Your task to perform on an android device: Search for sushi restaurants on Maps Image 0: 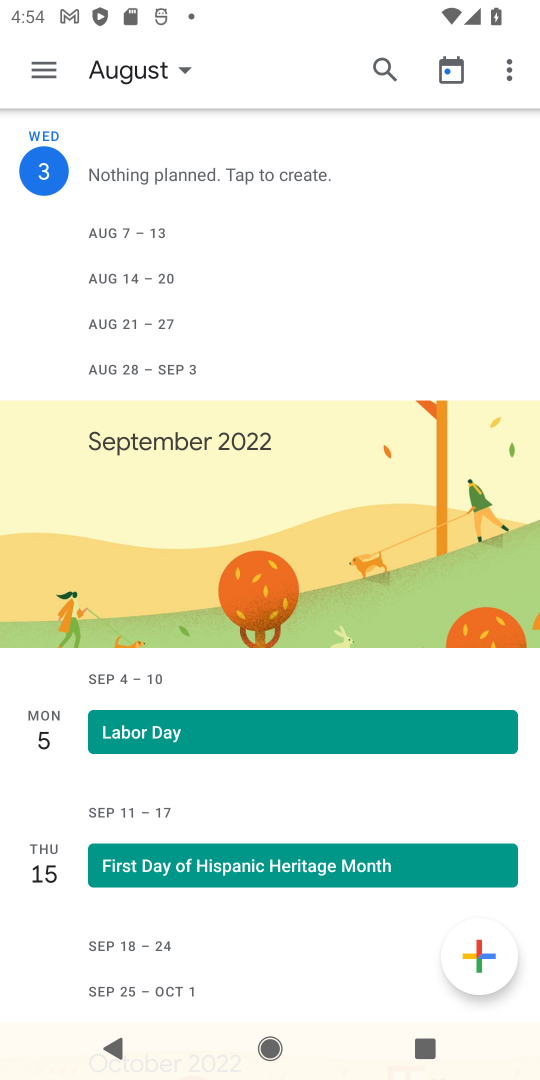
Step 0: press back button
Your task to perform on an android device: Search for sushi restaurants on Maps Image 1: 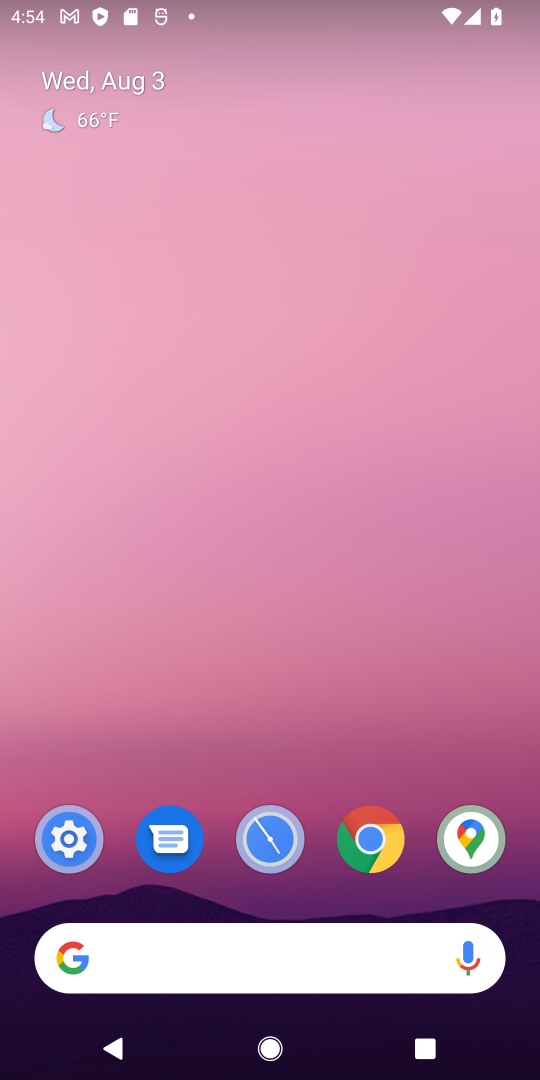
Step 1: click (462, 838)
Your task to perform on an android device: Search for sushi restaurants on Maps Image 2: 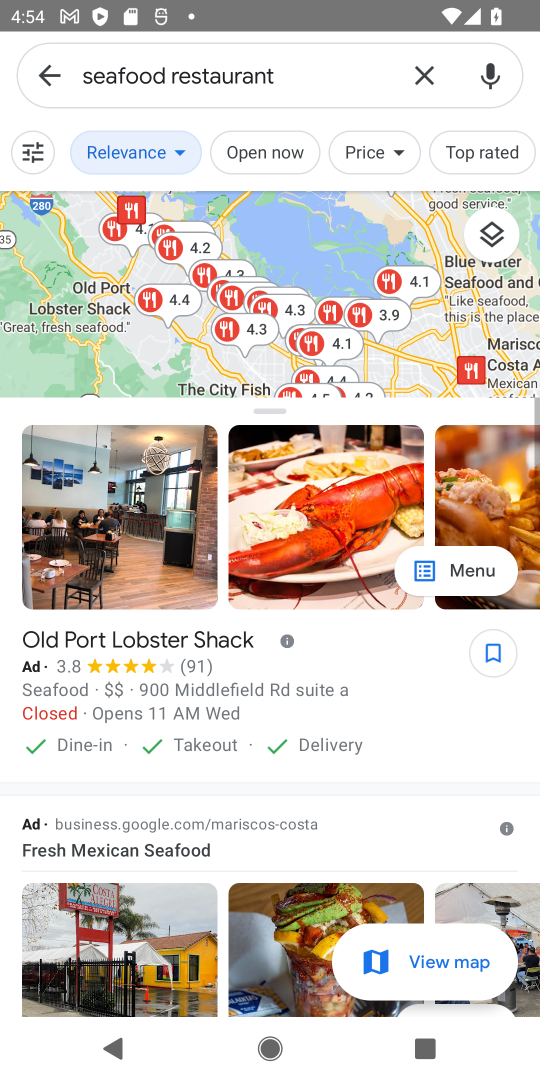
Step 2: click (428, 60)
Your task to perform on an android device: Search for sushi restaurants on Maps Image 3: 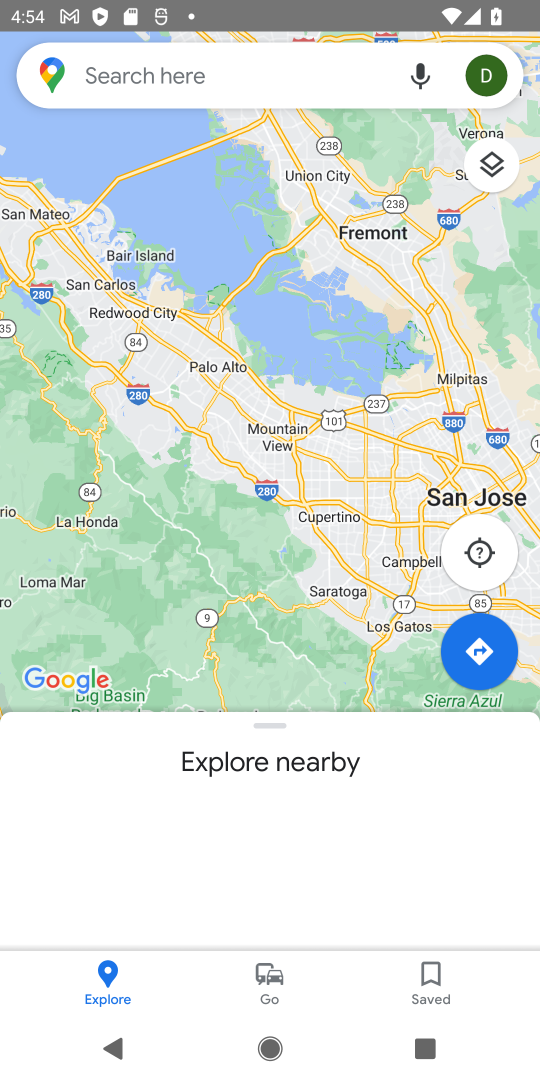
Step 3: click (223, 82)
Your task to perform on an android device: Search for sushi restaurants on Maps Image 4: 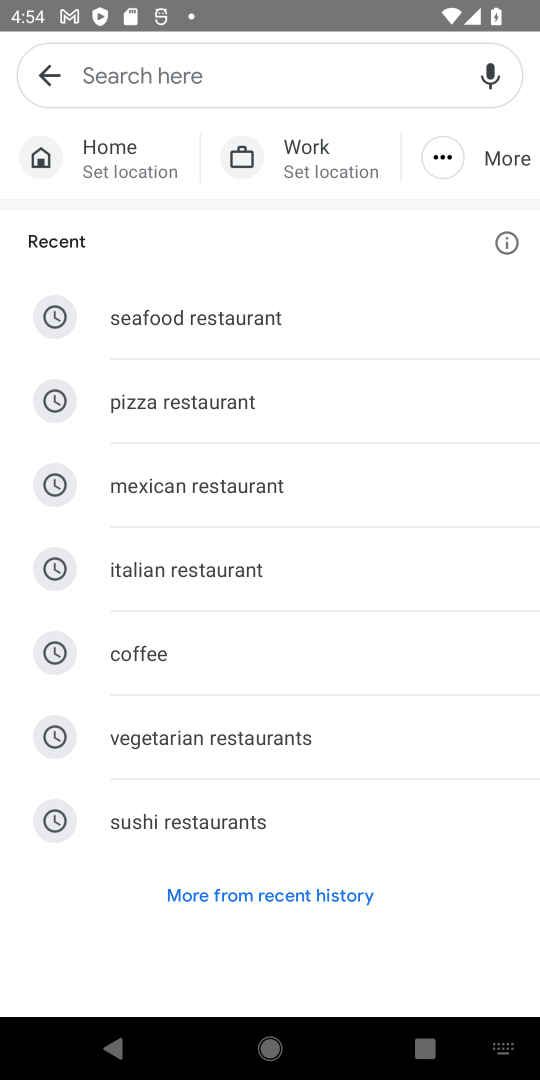
Step 4: click (163, 821)
Your task to perform on an android device: Search for sushi restaurants on Maps Image 5: 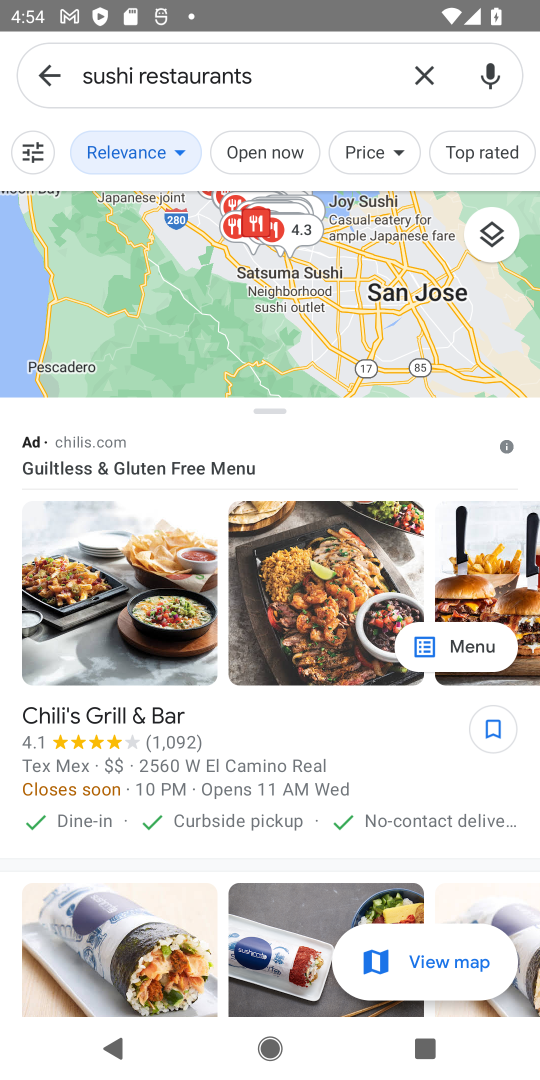
Step 5: task complete